Your task to perform on an android device: Open internet settings Image 0: 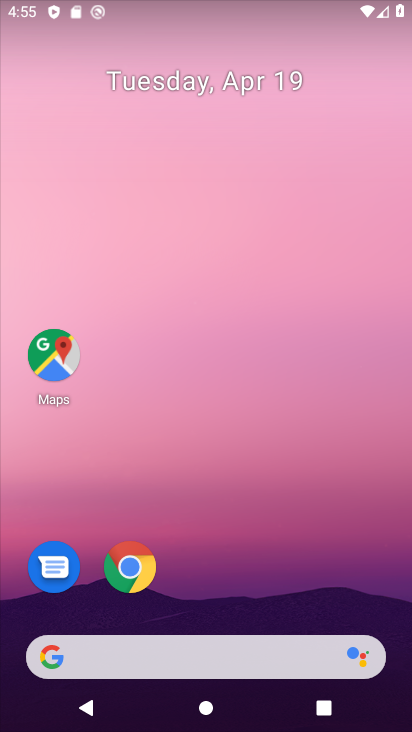
Step 0: drag from (223, 579) to (220, 42)
Your task to perform on an android device: Open internet settings Image 1: 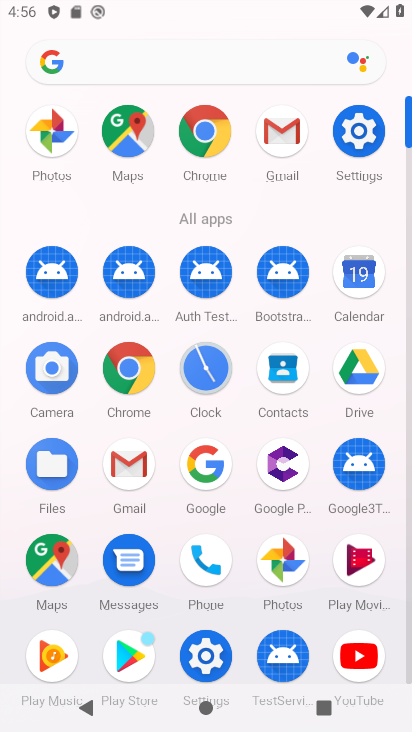
Step 1: click (209, 653)
Your task to perform on an android device: Open internet settings Image 2: 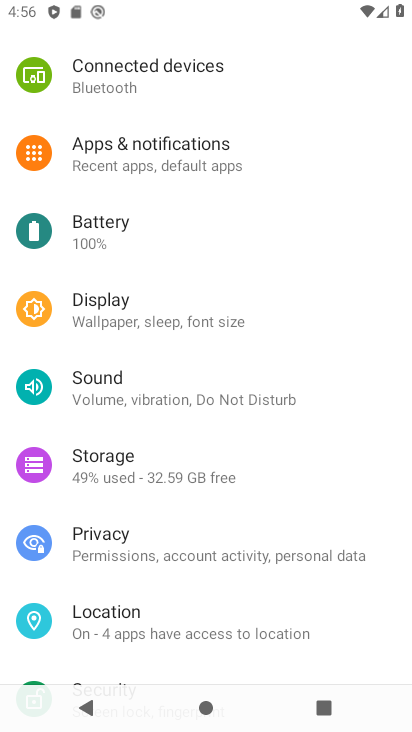
Step 2: drag from (190, 161) to (211, 492)
Your task to perform on an android device: Open internet settings Image 3: 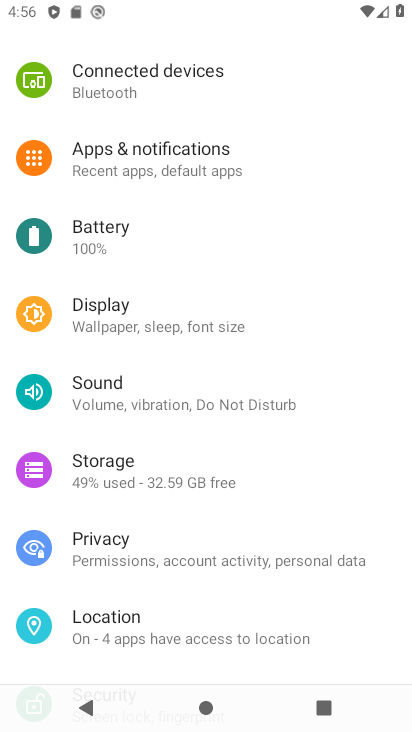
Step 3: drag from (214, 457) to (218, 668)
Your task to perform on an android device: Open internet settings Image 4: 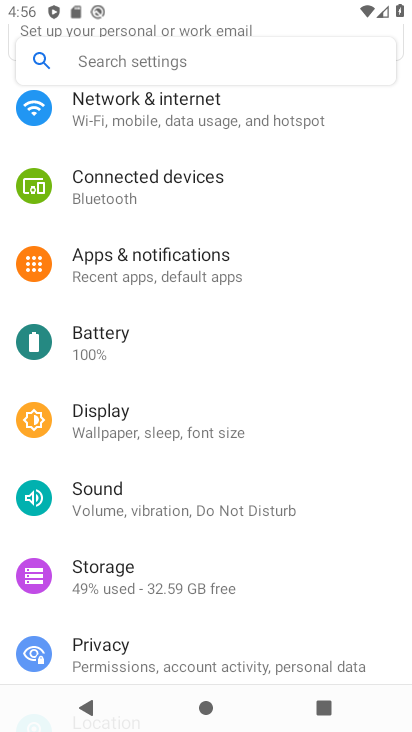
Step 4: click (136, 100)
Your task to perform on an android device: Open internet settings Image 5: 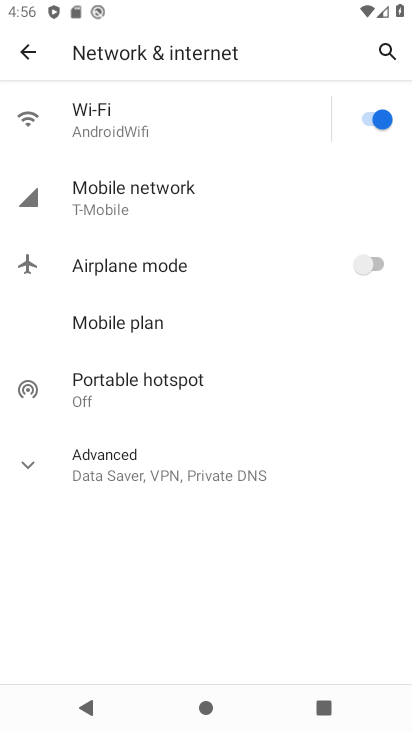
Step 5: task complete